Your task to perform on an android device: toggle location history Image 0: 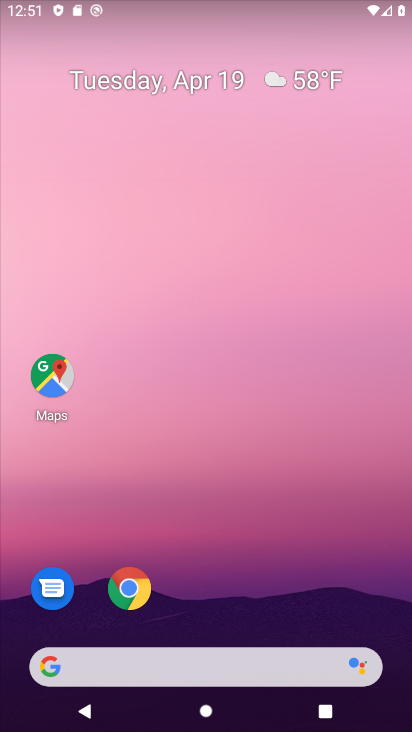
Step 0: drag from (228, 611) to (228, 236)
Your task to perform on an android device: toggle location history Image 1: 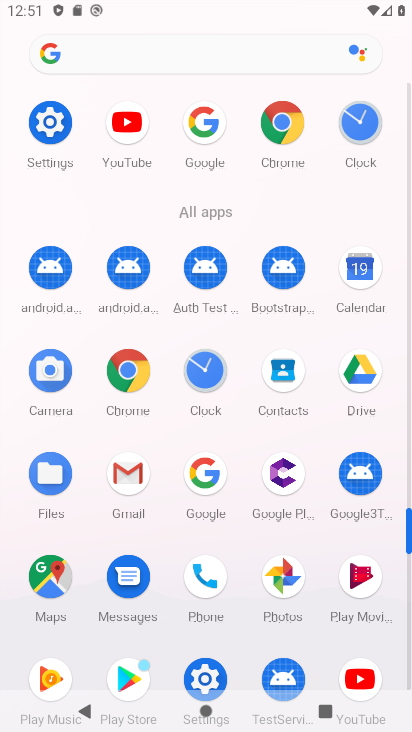
Step 1: click (63, 134)
Your task to perform on an android device: toggle location history Image 2: 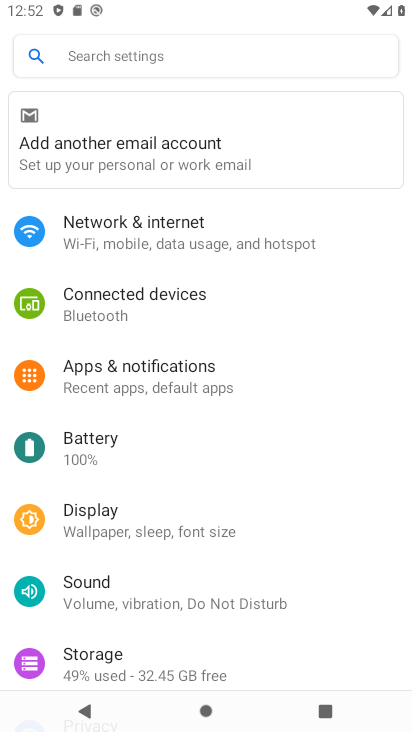
Step 2: drag from (183, 643) to (184, 330)
Your task to perform on an android device: toggle location history Image 3: 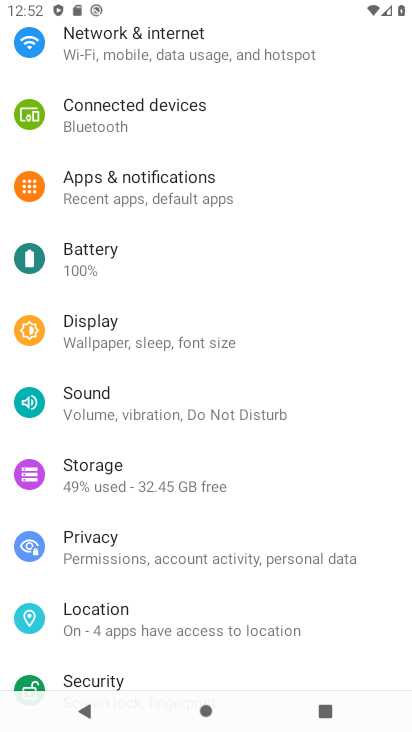
Step 3: drag from (146, 582) to (186, 370)
Your task to perform on an android device: toggle location history Image 4: 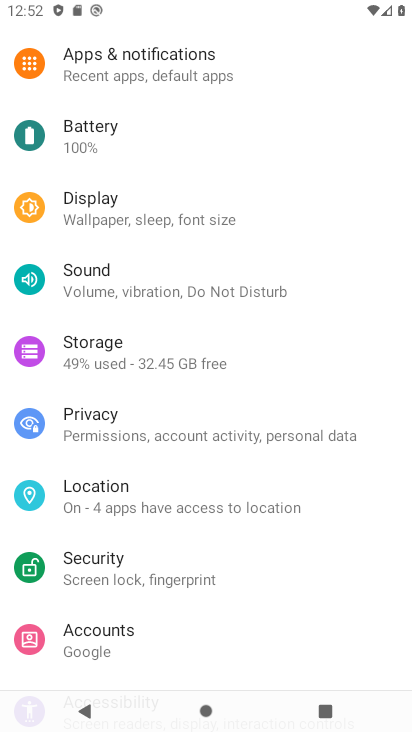
Step 4: click (120, 499)
Your task to perform on an android device: toggle location history Image 5: 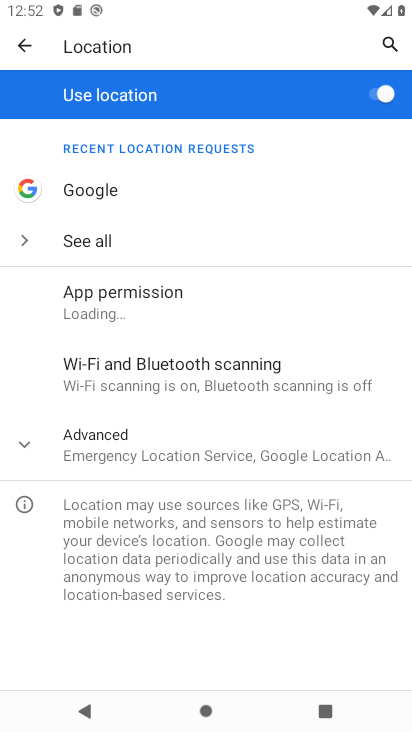
Step 5: click (165, 446)
Your task to perform on an android device: toggle location history Image 6: 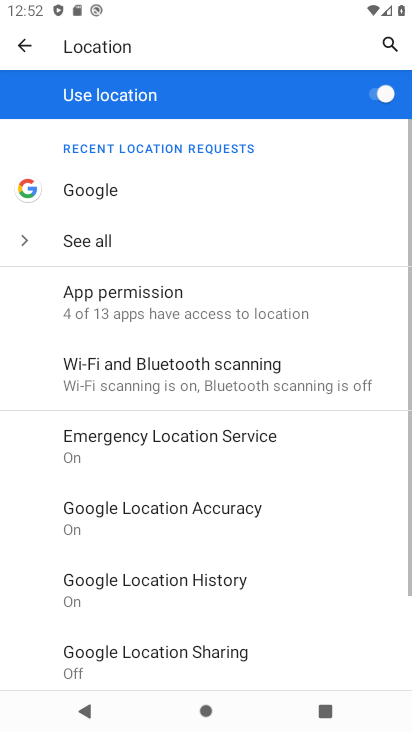
Step 6: drag from (217, 597) to (258, 341)
Your task to perform on an android device: toggle location history Image 7: 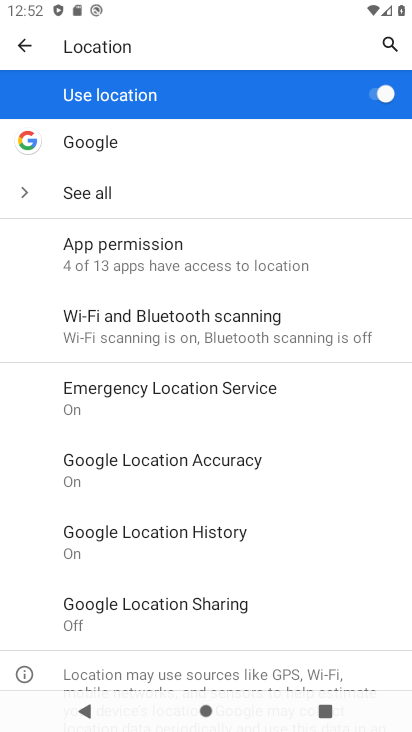
Step 7: click (228, 523)
Your task to perform on an android device: toggle location history Image 8: 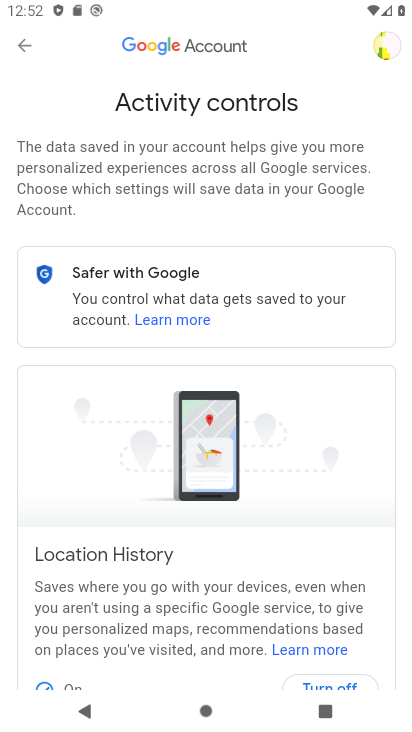
Step 8: drag from (202, 630) to (204, 281)
Your task to perform on an android device: toggle location history Image 9: 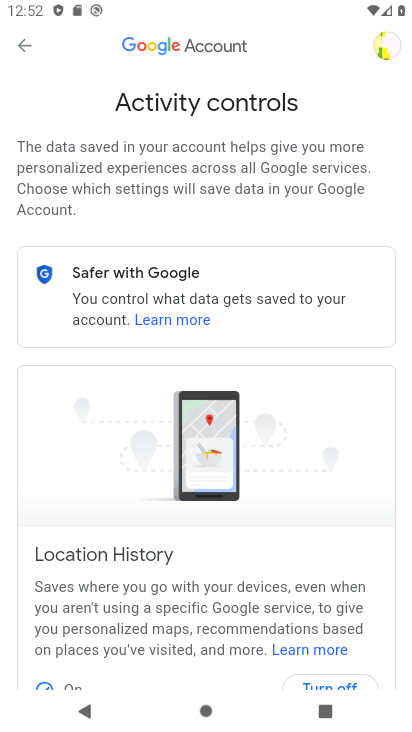
Step 9: drag from (207, 439) to (216, 281)
Your task to perform on an android device: toggle location history Image 10: 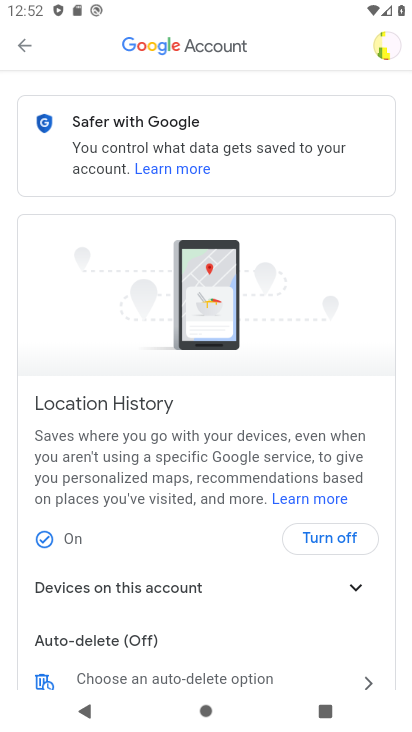
Step 10: click (336, 539)
Your task to perform on an android device: toggle location history Image 11: 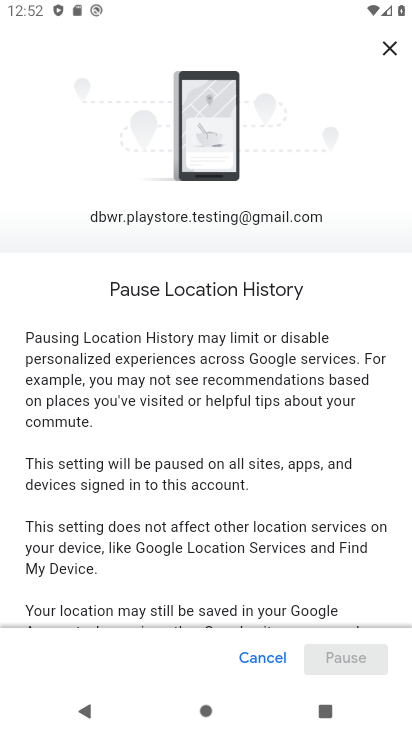
Step 11: drag from (304, 572) to (270, 257)
Your task to perform on an android device: toggle location history Image 12: 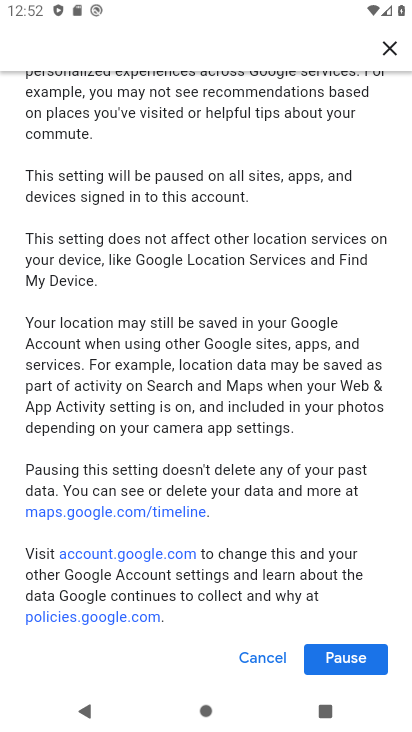
Step 12: drag from (206, 537) to (213, 233)
Your task to perform on an android device: toggle location history Image 13: 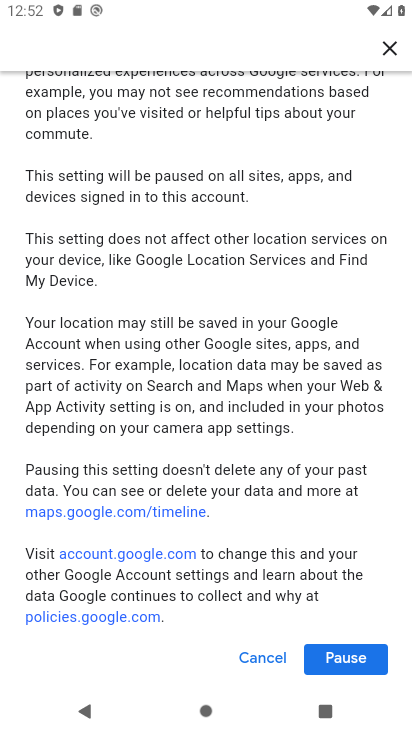
Step 13: click (325, 650)
Your task to perform on an android device: toggle location history Image 14: 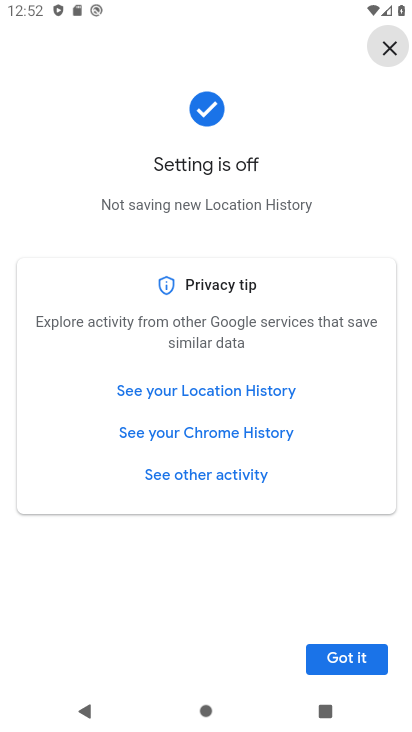
Step 14: task complete